Your task to perform on an android device: Set the phone to "Do not disturb". Image 0: 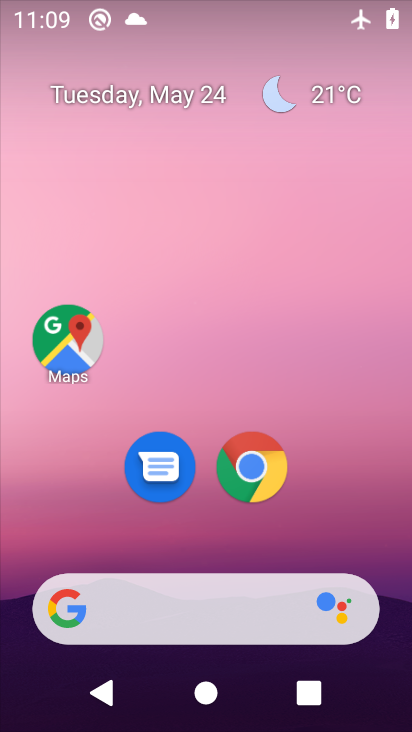
Step 0: drag from (232, 497) to (298, 84)
Your task to perform on an android device: Set the phone to "Do not disturb". Image 1: 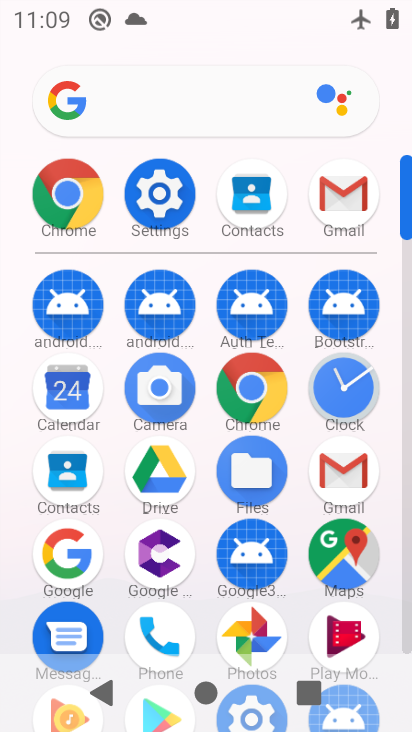
Step 1: click (152, 215)
Your task to perform on an android device: Set the phone to "Do not disturb". Image 2: 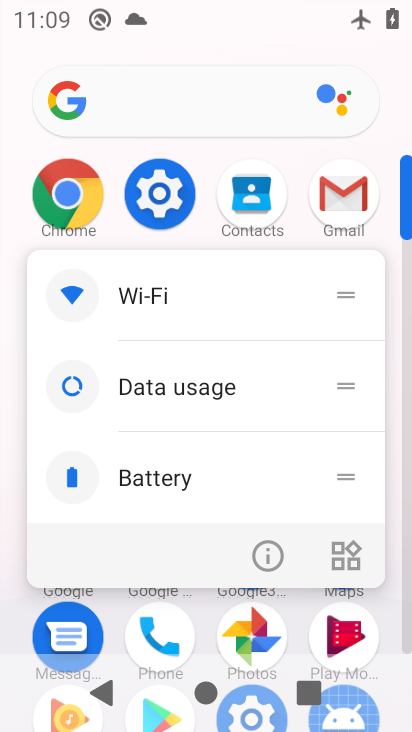
Step 2: click (276, 548)
Your task to perform on an android device: Set the phone to "Do not disturb". Image 3: 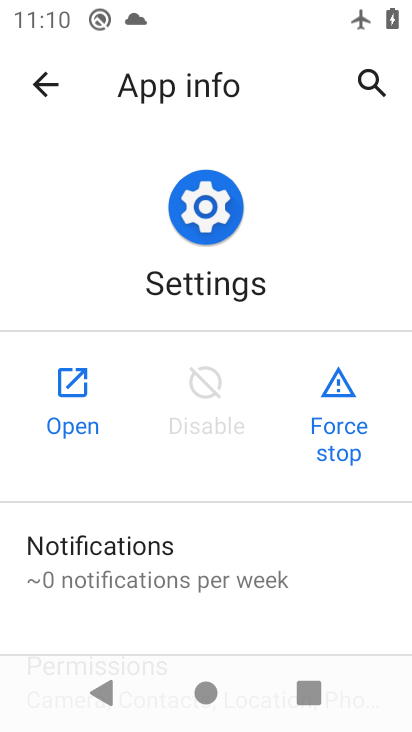
Step 3: click (64, 371)
Your task to perform on an android device: Set the phone to "Do not disturb". Image 4: 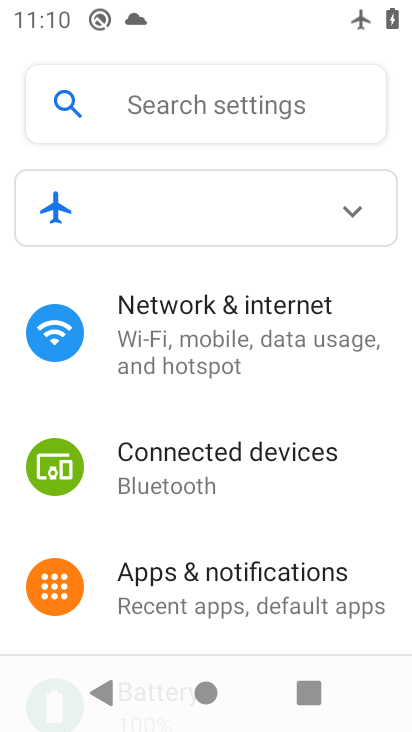
Step 4: drag from (247, 569) to (321, 112)
Your task to perform on an android device: Set the phone to "Do not disturb". Image 5: 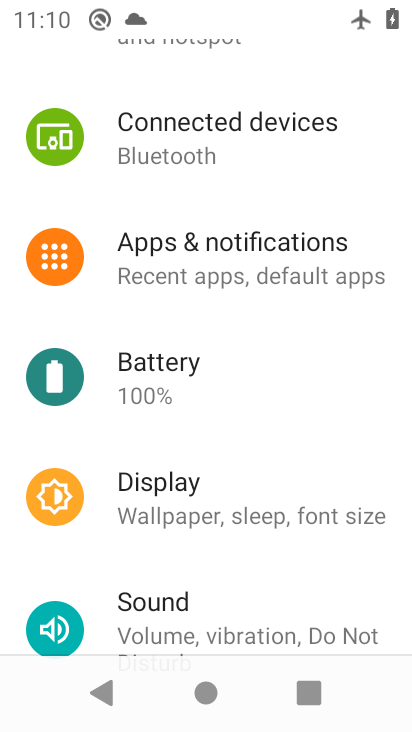
Step 5: click (216, 241)
Your task to perform on an android device: Set the phone to "Do not disturb". Image 6: 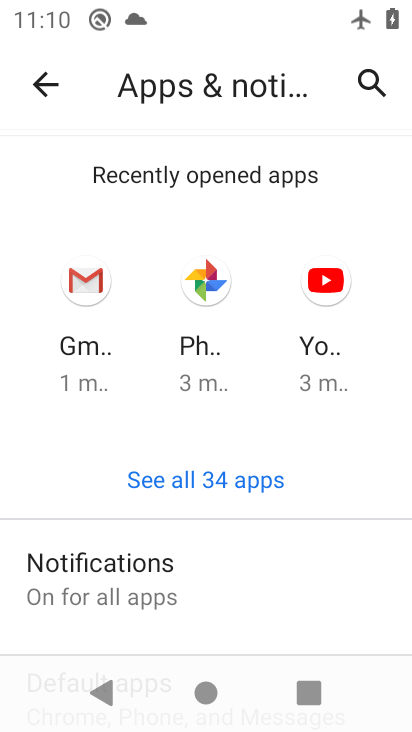
Step 6: drag from (181, 579) to (247, 47)
Your task to perform on an android device: Set the phone to "Do not disturb". Image 7: 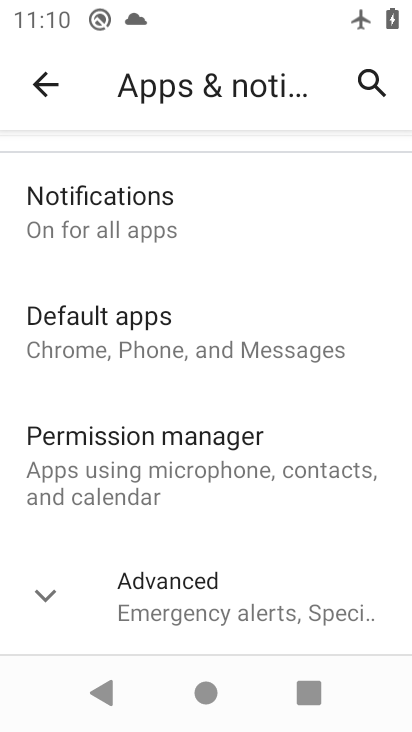
Step 7: drag from (220, 558) to (410, 22)
Your task to perform on an android device: Set the phone to "Do not disturb". Image 8: 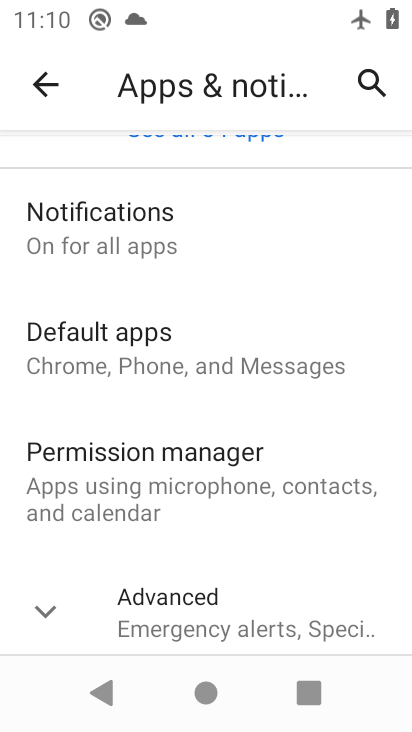
Step 8: drag from (254, 591) to (304, 137)
Your task to perform on an android device: Set the phone to "Do not disturb". Image 9: 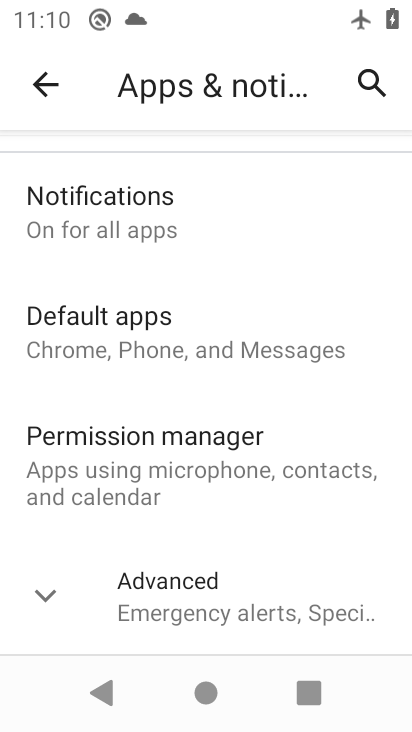
Step 9: drag from (181, 568) to (270, 233)
Your task to perform on an android device: Set the phone to "Do not disturb". Image 10: 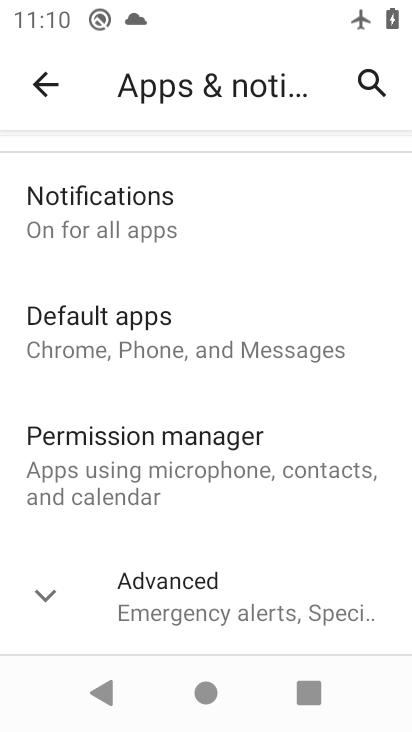
Step 10: click (156, 195)
Your task to perform on an android device: Set the phone to "Do not disturb". Image 11: 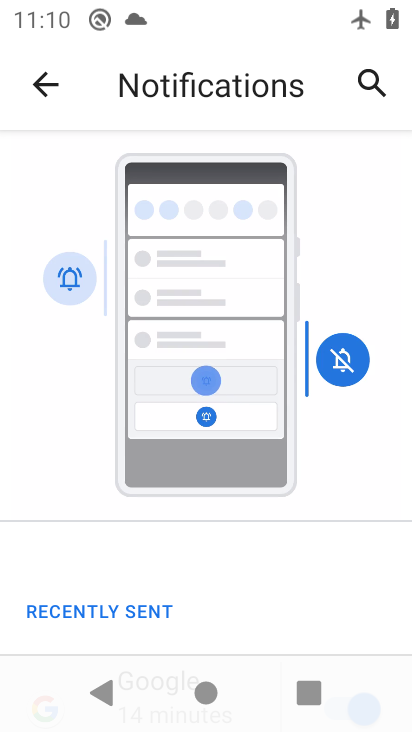
Step 11: drag from (197, 610) to (315, 103)
Your task to perform on an android device: Set the phone to "Do not disturb". Image 12: 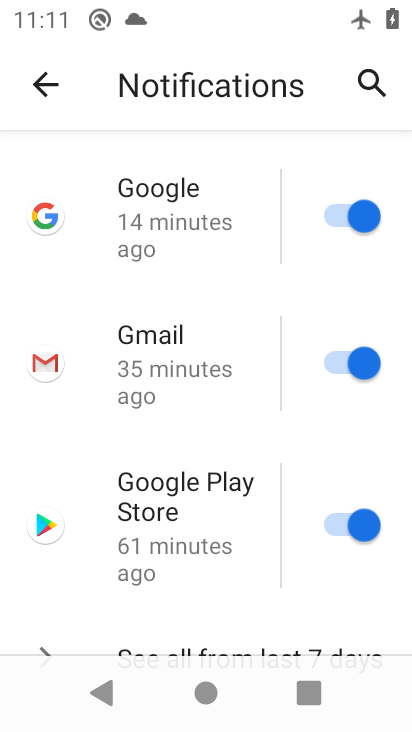
Step 12: drag from (181, 581) to (278, 108)
Your task to perform on an android device: Set the phone to "Do not disturb". Image 13: 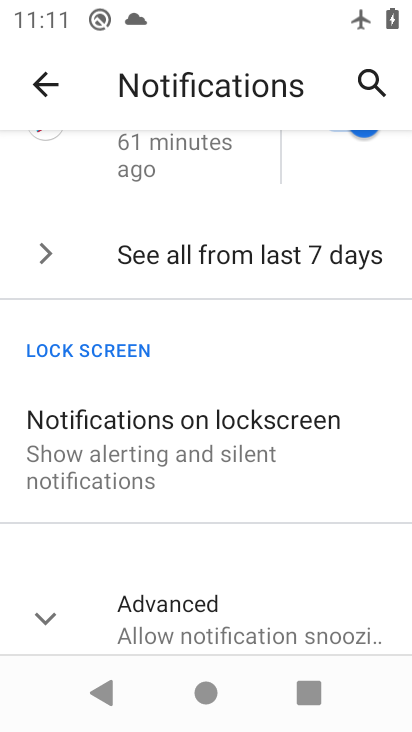
Step 13: drag from (231, 604) to (305, 72)
Your task to perform on an android device: Set the phone to "Do not disturb". Image 14: 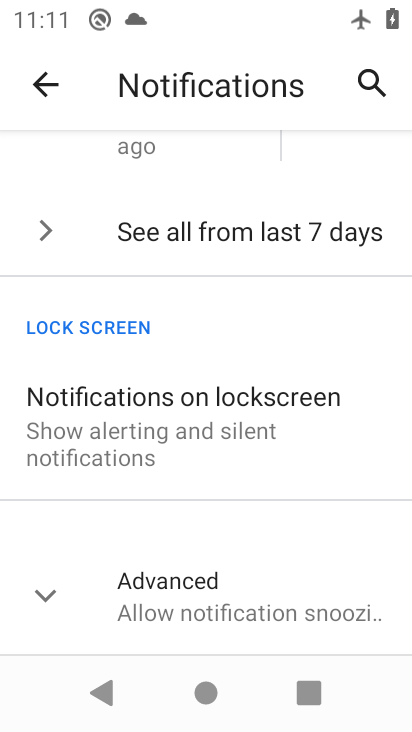
Step 14: click (180, 589)
Your task to perform on an android device: Set the phone to "Do not disturb". Image 15: 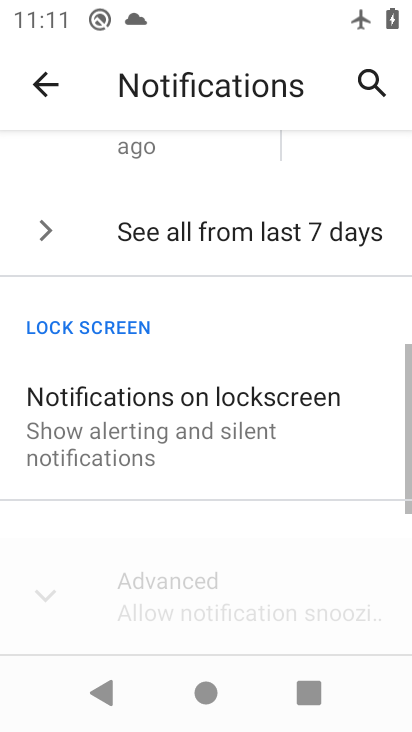
Step 15: drag from (184, 552) to (260, 33)
Your task to perform on an android device: Set the phone to "Do not disturb". Image 16: 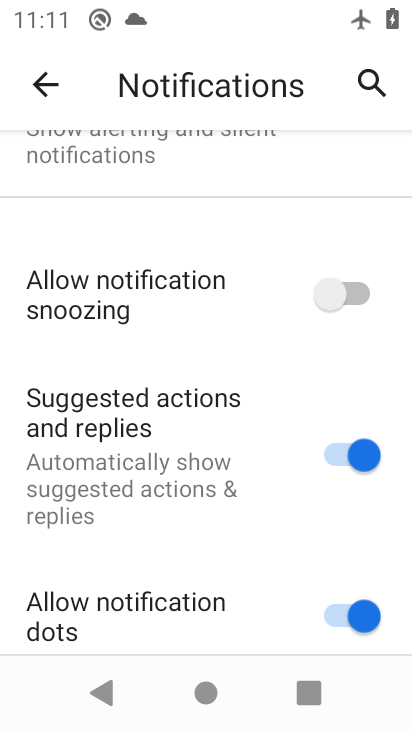
Step 16: drag from (226, 589) to (258, 135)
Your task to perform on an android device: Set the phone to "Do not disturb". Image 17: 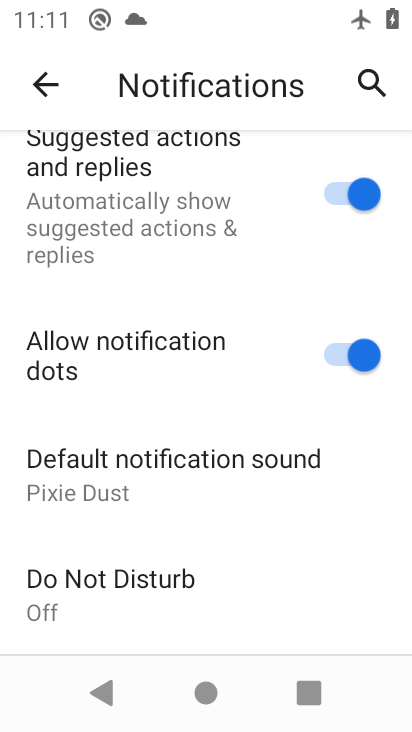
Step 17: click (174, 592)
Your task to perform on an android device: Set the phone to "Do not disturb". Image 18: 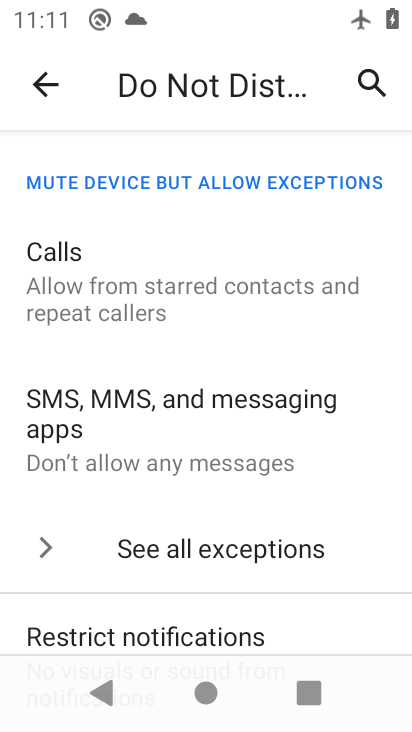
Step 18: drag from (241, 445) to (298, 57)
Your task to perform on an android device: Set the phone to "Do not disturb". Image 19: 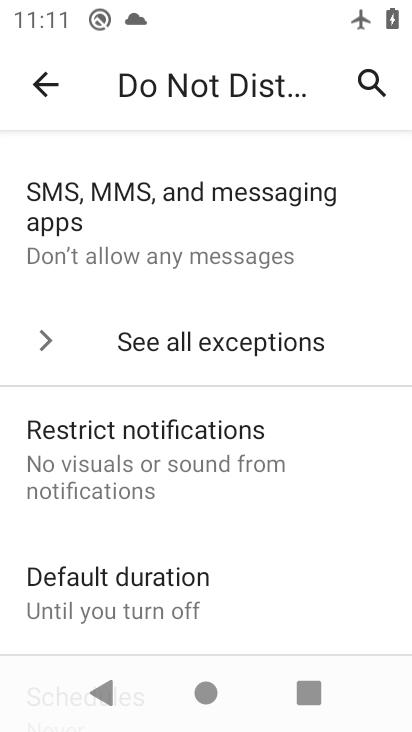
Step 19: drag from (201, 560) to (293, 35)
Your task to perform on an android device: Set the phone to "Do not disturb". Image 20: 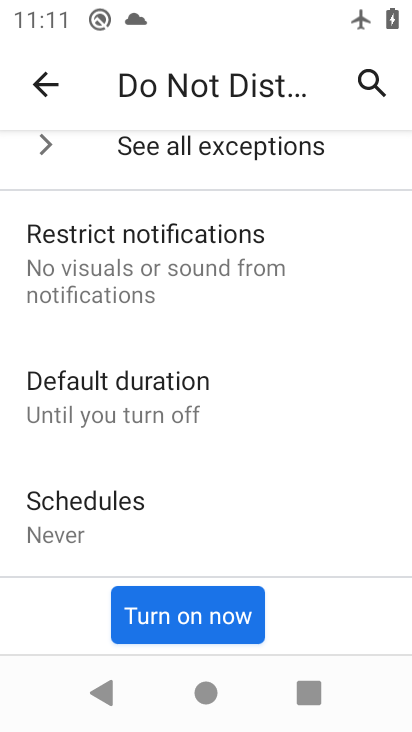
Step 20: click (126, 625)
Your task to perform on an android device: Set the phone to "Do not disturb". Image 21: 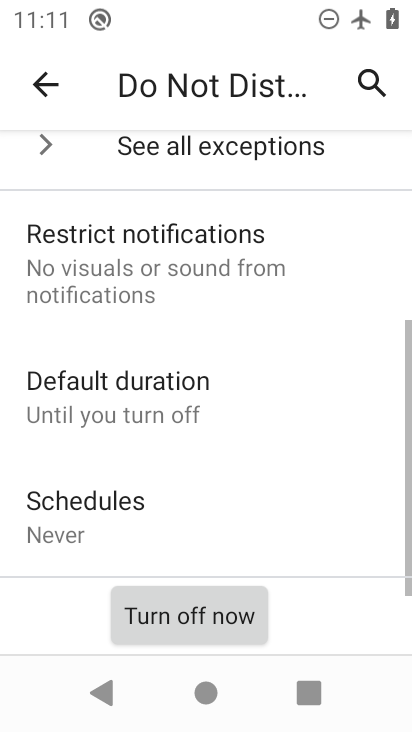
Step 21: task complete